Your task to perform on an android device: toggle pop-ups in chrome Image 0: 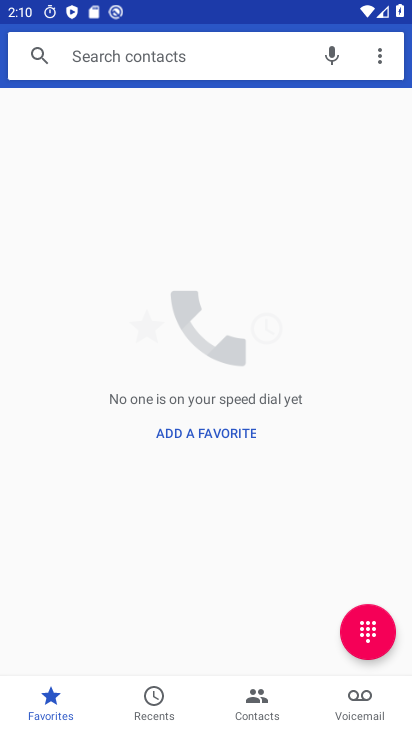
Step 0: press home button
Your task to perform on an android device: toggle pop-ups in chrome Image 1: 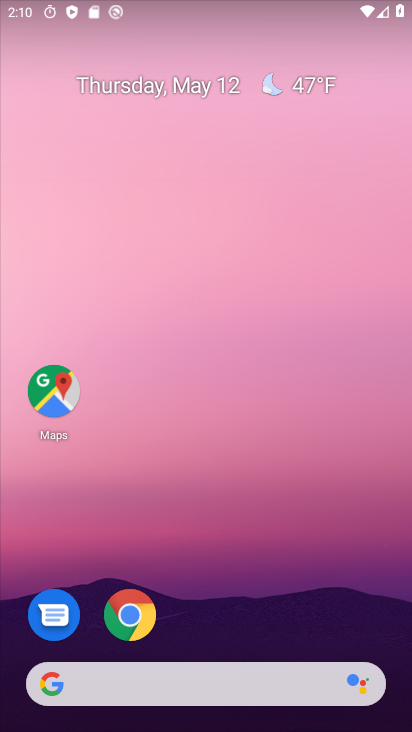
Step 1: click (133, 611)
Your task to perform on an android device: toggle pop-ups in chrome Image 2: 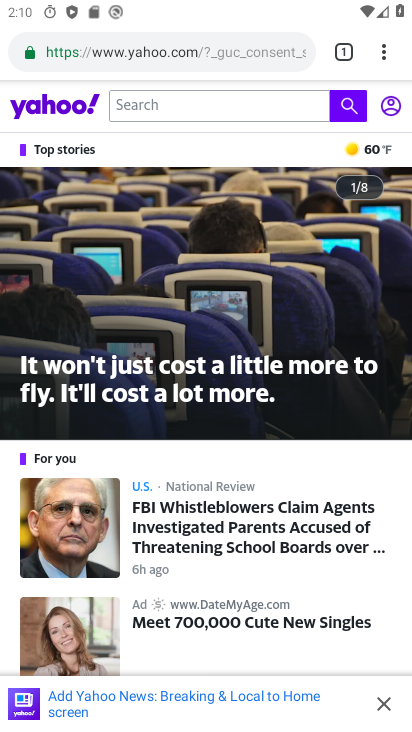
Step 2: click (372, 52)
Your task to perform on an android device: toggle pop-ups in chrome Image 3: 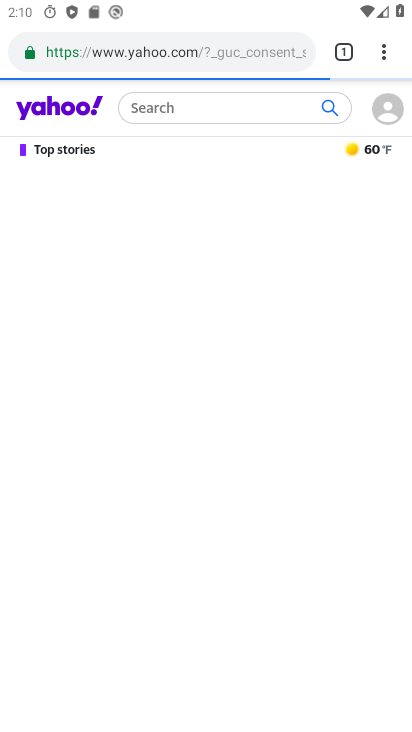
Step 3: click (376, 51)
Your task to perform on an android device: toggle pop-ups in chrome Image 4: 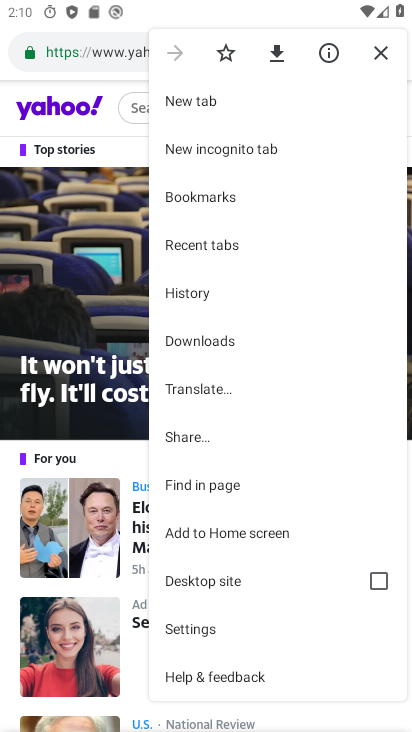
Step 4: click (216, 623)
Your task to perform on an android device: toggle pop-ups in chrome Image 5: 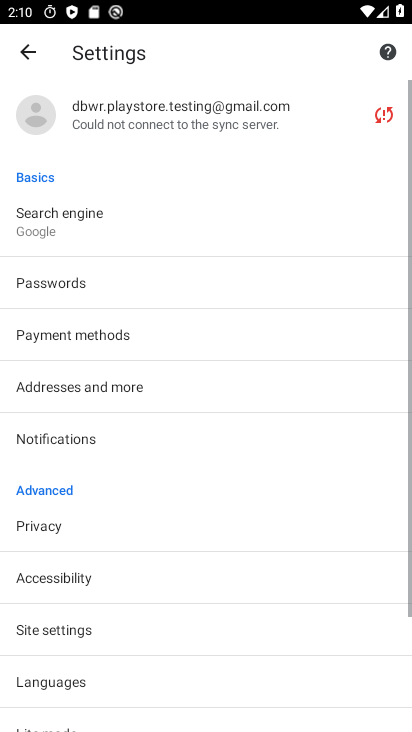
Step 5: click (92, 648)
Your task to perform on an android device: toggle pop-ups in chrome Image 6: 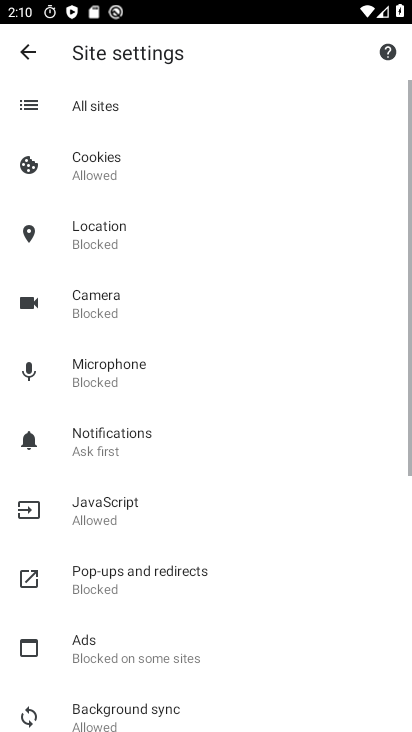
Step 6: click (119, 598)
Your task to perform on an android device: toggle pop-ups in chrome Image 7: 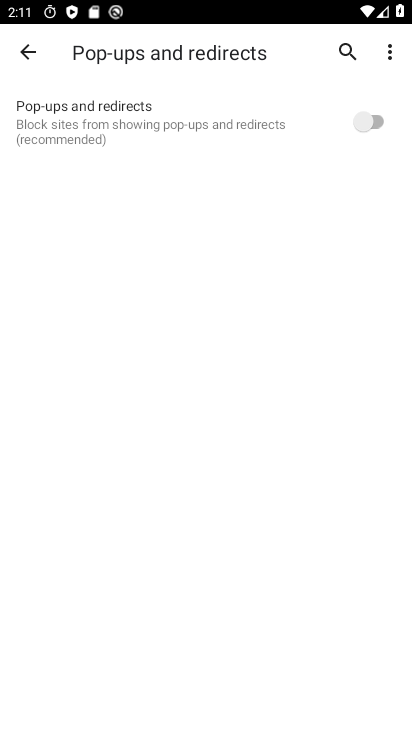
Step 7: click (359, 122)
Your task to perform on an android device: toggle pop-ups in chrome Image 8: 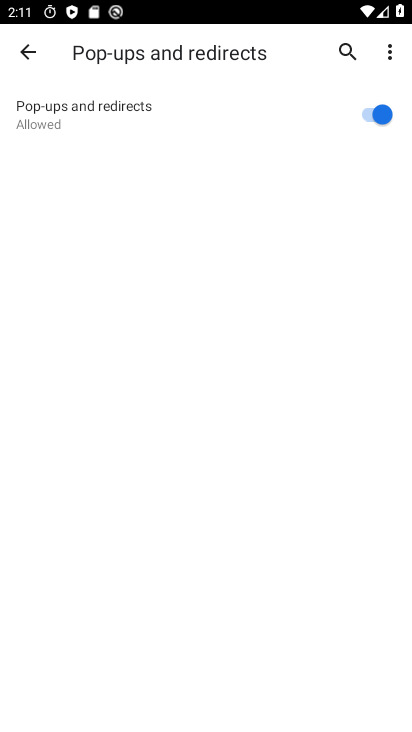
Step 8: task complete